Your task to perform on an android device: Open accessibility settings Image 0: 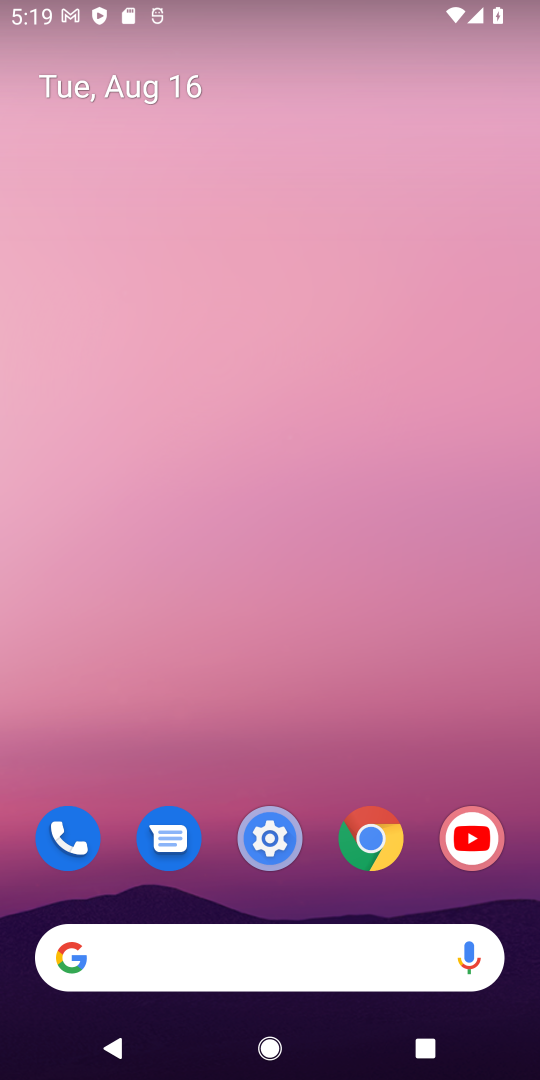
Step 0: click (279, 824)
Your task to perform on an android device: Open accessibility settings Image 1: 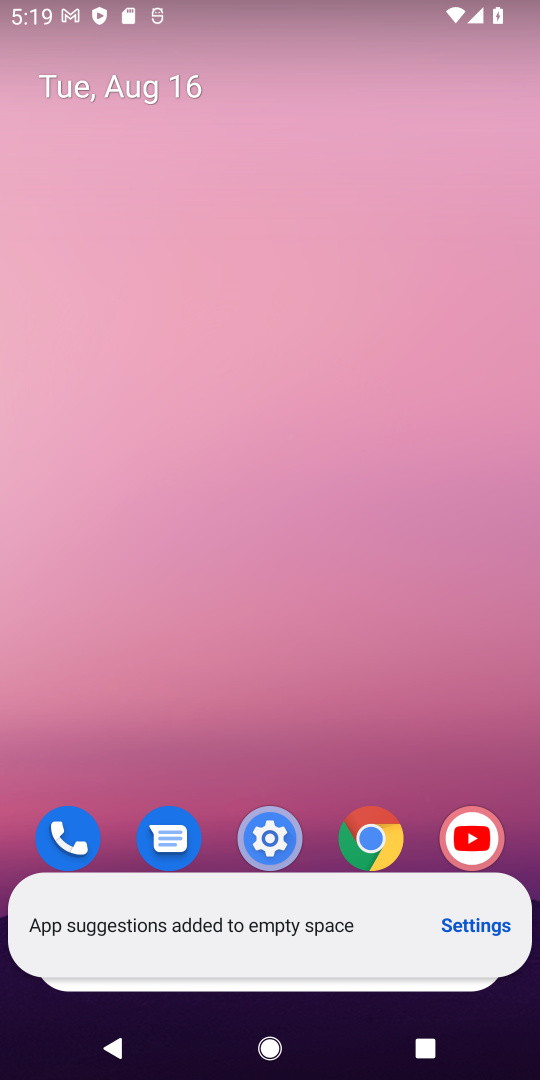
Step 1: click (274, 834)
Your task to perform on an android device: Open accessibility settings Image 2: 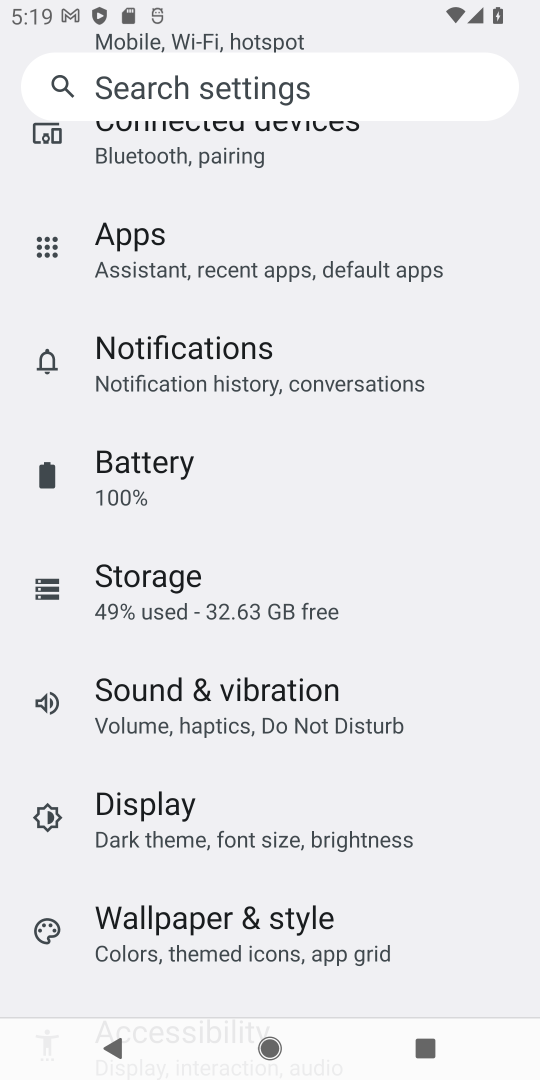
Step 2: drag from (269, 514) to (209, 931)
Your task to perform on an android device: Open accessibility settings Image 3: 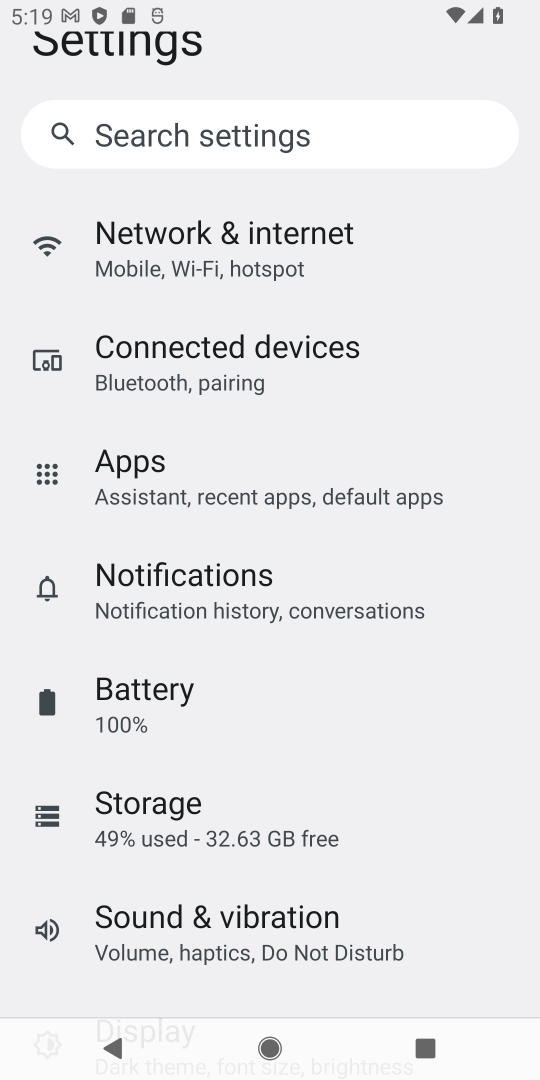
Step 3: drag from (230, 895) to (434, 6)
Your task to perform on an android device: Open accessibility settings Image 4: 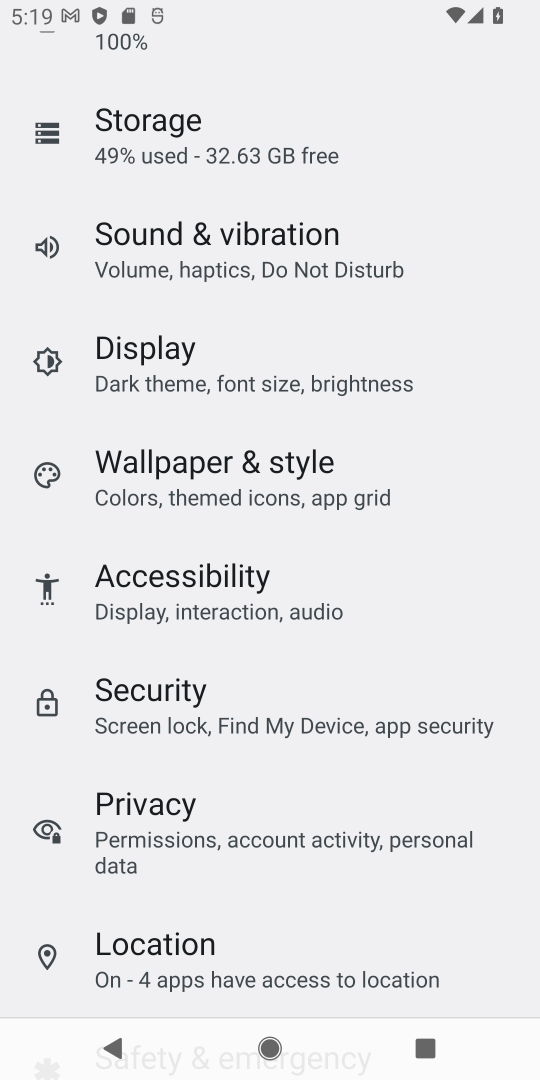
Step 4: drag from (219, 862) to (380, 276)
Your task to perform on an android device: Open accessibility settings Image 5: 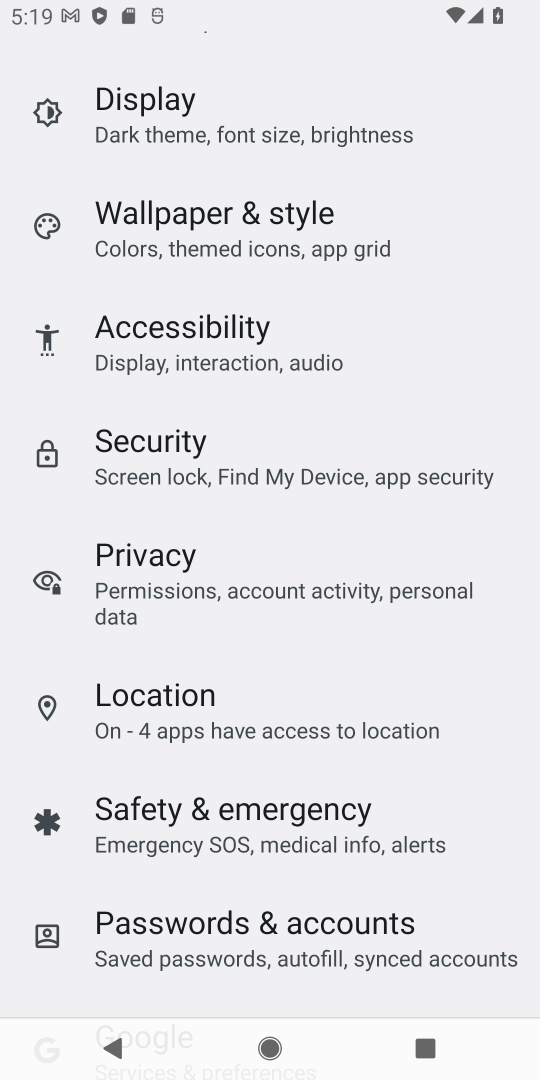
Step 5: click (158, 332)
Your task to perform on an android device: Open accessibility settings Image 6: 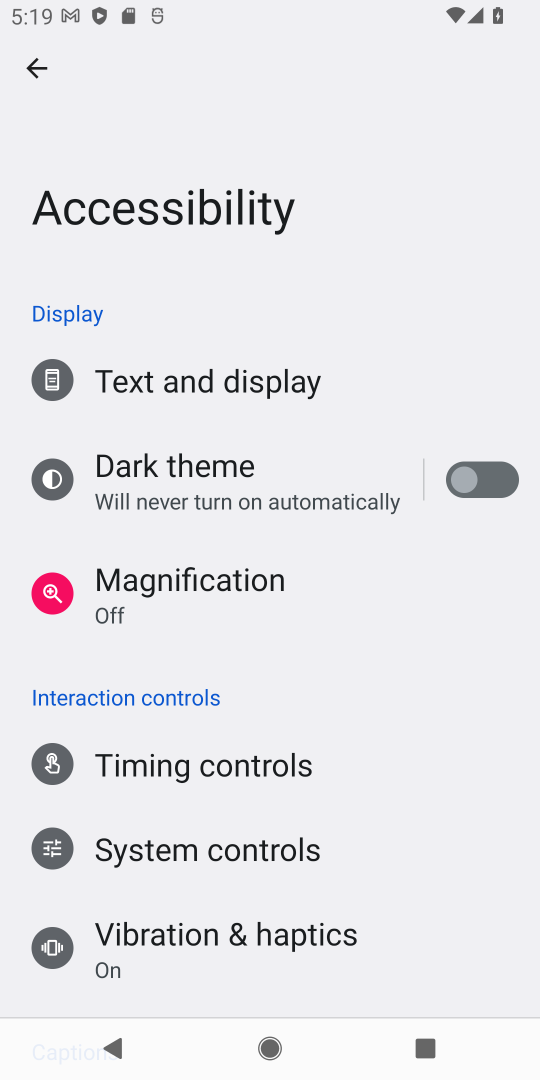
Step 6: task complete